Your task to perform on an android device: turn off priority inbox in the gmail app Image 0: 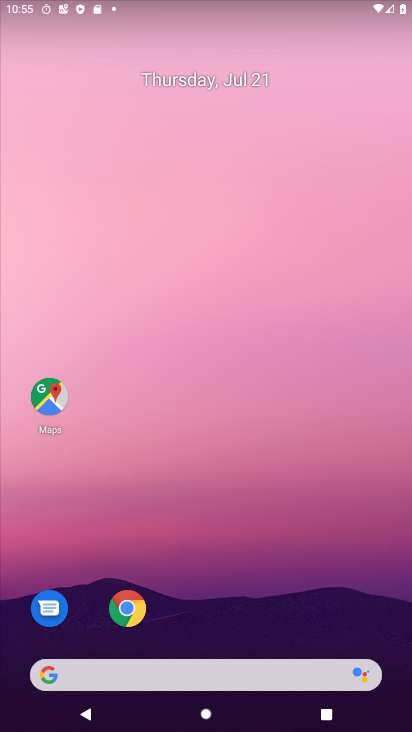
Step 0: drag from (189, 617) to (321, 18)
Your task to perform on an android device: turn off priority inbox in the gmail app Image 1: 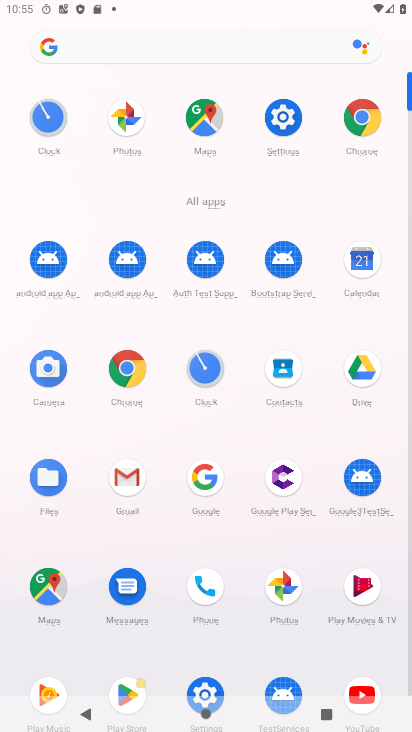
Step 1: click (125, 481)
Your task to perform on an android device: turn off priority inbox in the gmail app Image 2: 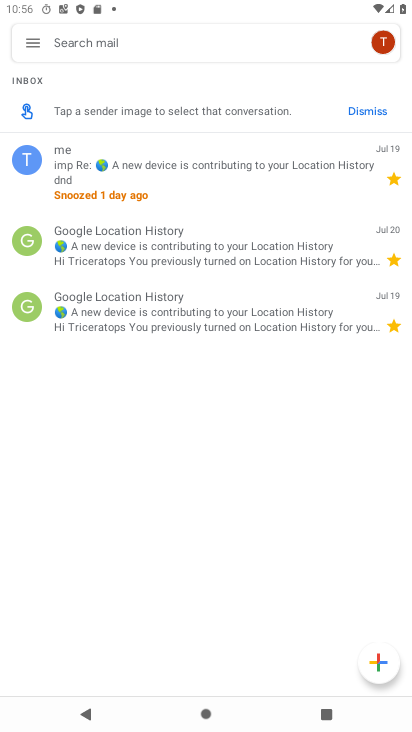
Step 2: click (41, 45)
Your task to perform on an android device: turn off priority inbox in the gmail app Image 3: 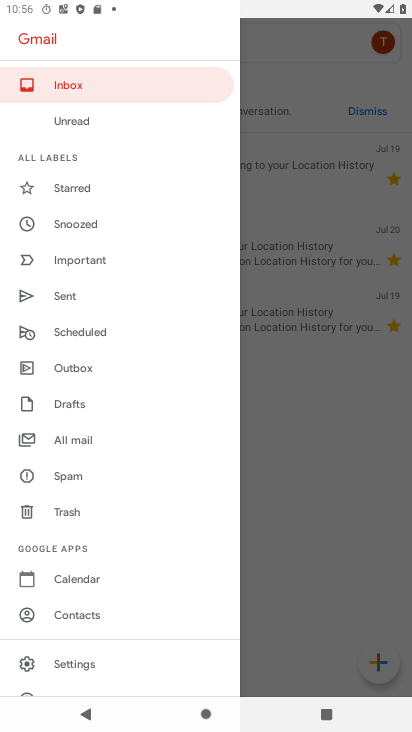
Step 3: click (66, 665)
Your task to perform on an android device: turn off priority inbox in the gmail app Image 4: 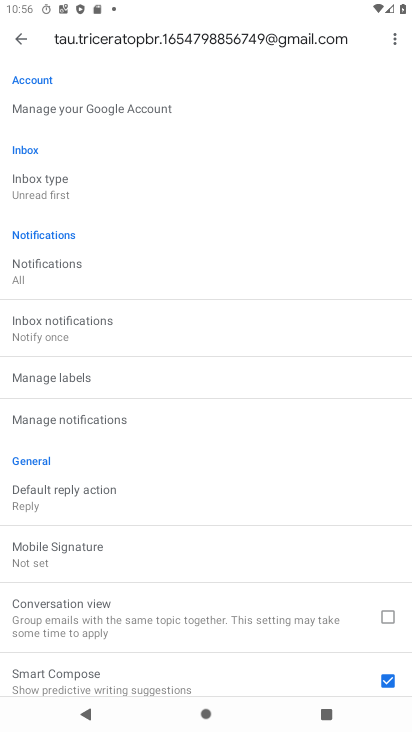
Step 4: drag from (125, 489) to (194, 365)
Your task to perform on an android device: turn off priority inbox in the gmail app Image 5: 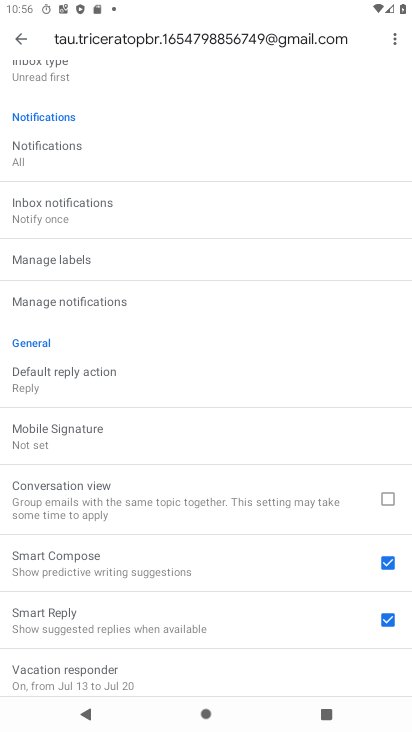
Step 5: drag from (103, 443) to (124, 258)
Your task to perform on an android device: turn off priority inbox in the gmail app Image 6: 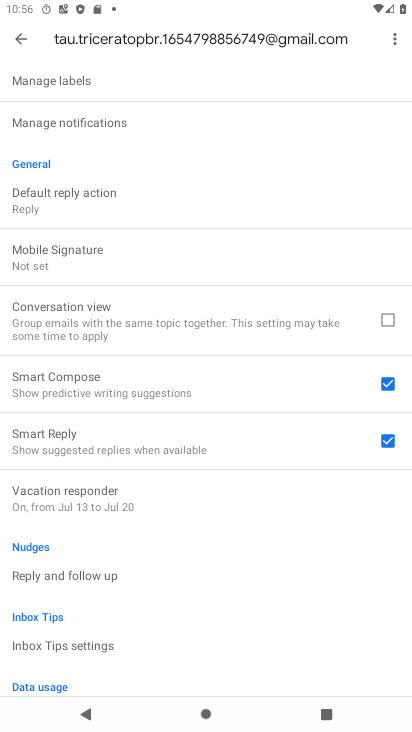
Step 6: drag from (171, 217) to (139, 620)
Your task to perform on an android device: turn off priority inbox in the gmail app Image 7: 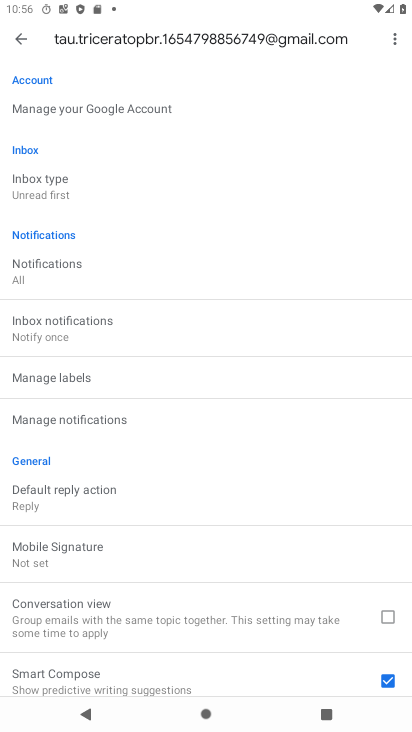
Step 7: drag from (211, 297) to (198, 538)
Your task to perform on an android device: turn off priority inbox in the gmail app Image 8: 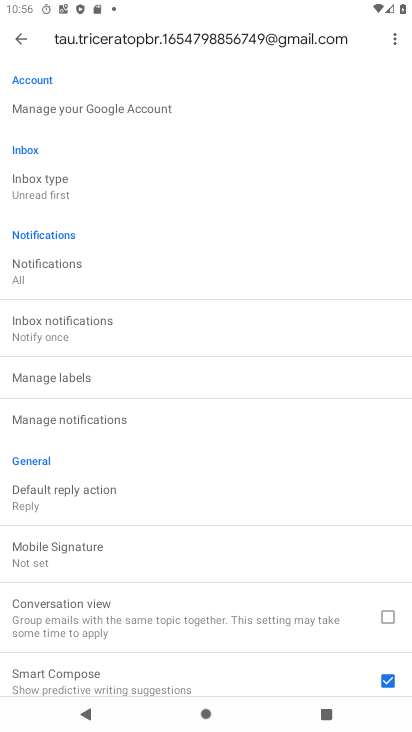
Step 8: click (27, 182)
Your task to perform on an android device: turn off priority inbox in the gmail app Image 9: 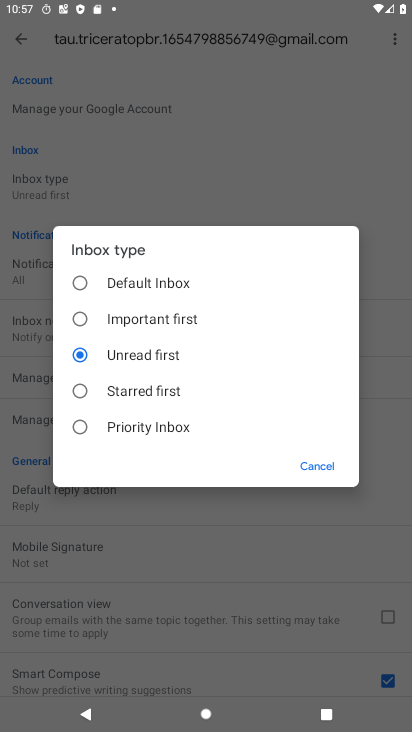
Step 9: task complete